Your task to perform on an android device: Toggle the flashlight Image 0: 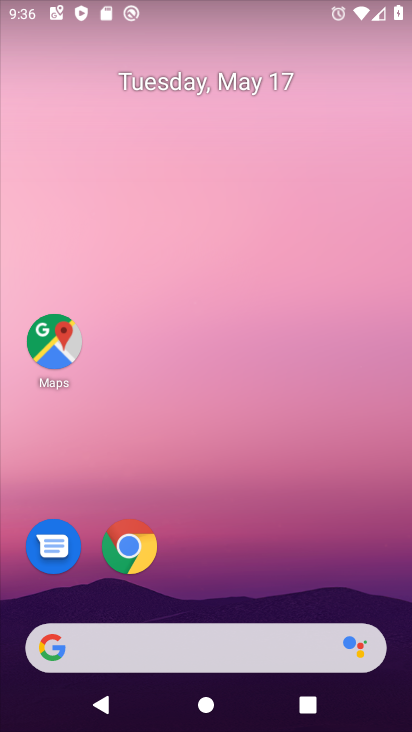
Step 0: drag from (248, 579) to (271, 44)
Your task to perform on an android device: Toggle the flashlight Image 1: 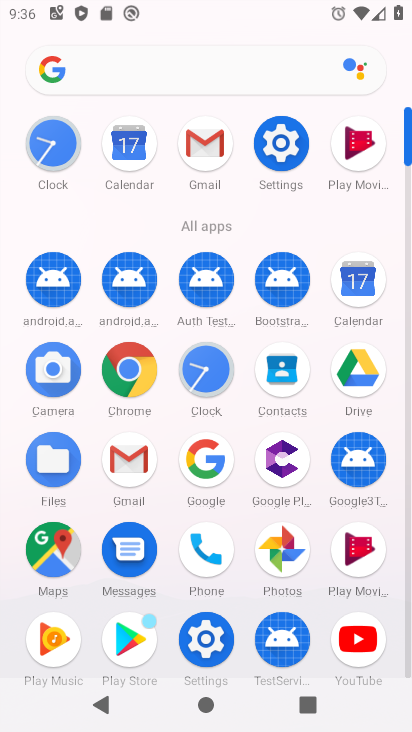
Step 1: click (266, 142)
Your task to perform on an android device: Toggle the flashlight Image 2: 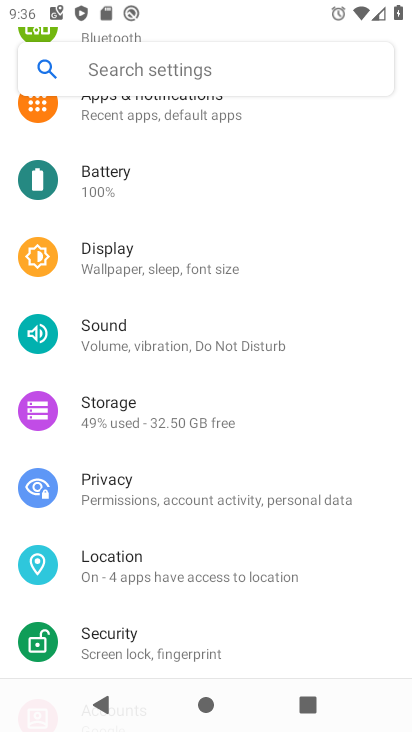
Step 2: task complete